Your task to perform on an android device: Go to Google maps Image 0: 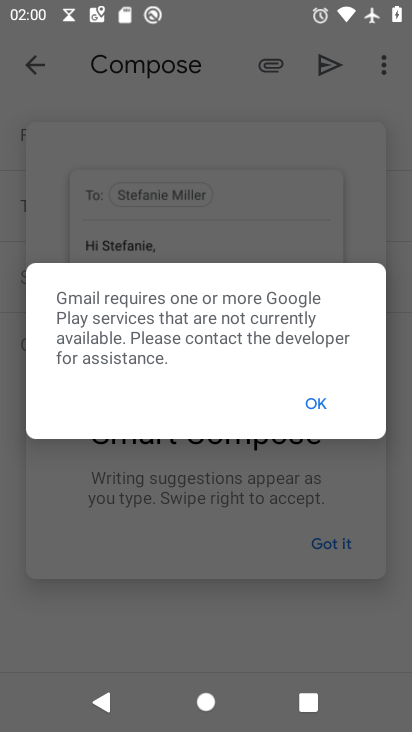
Step 0: press home button
Your task to perform on an android device: Go to Google maps Image 1: 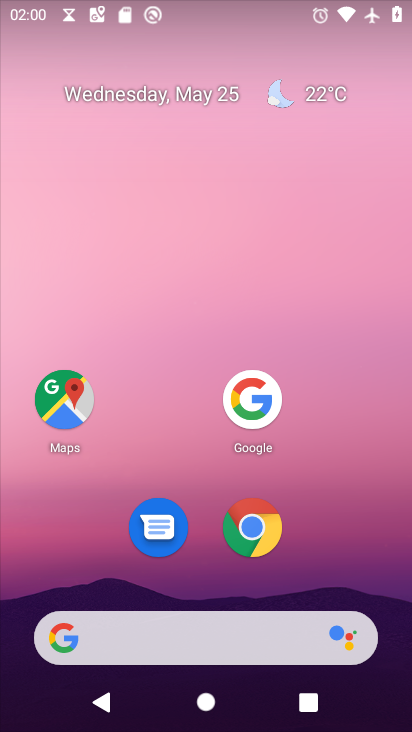
Step 1: click (56, 400)
Your task to perform on an android device: Go to Google maps Image 2: 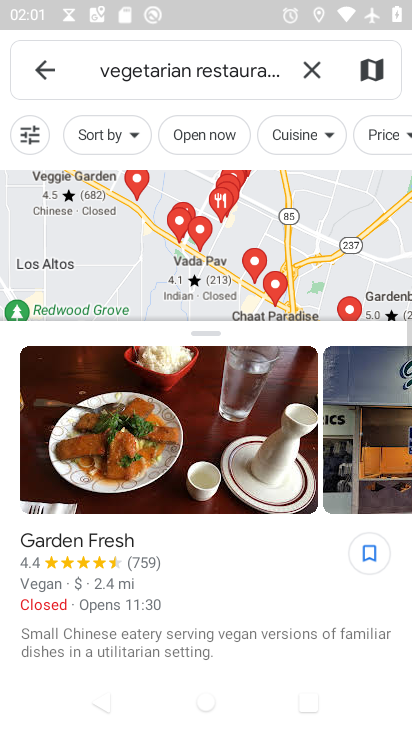
Step 2: click (42, 71)
Your task to perform on an android device: Go to Google maps Image 3: 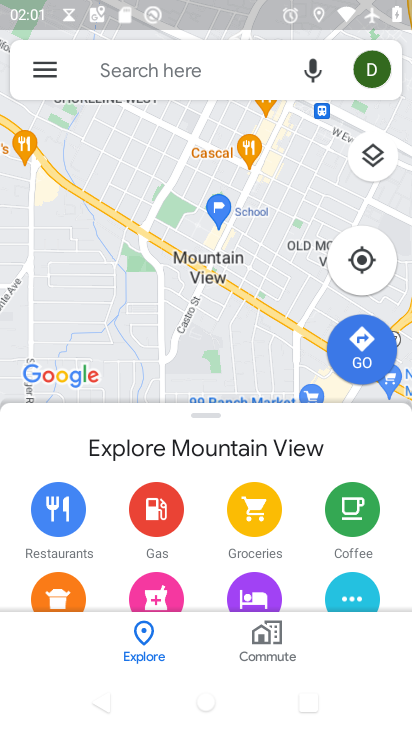
Step 3: task complete